Your task to perform on an android device: turn off sleep mode Image 0: 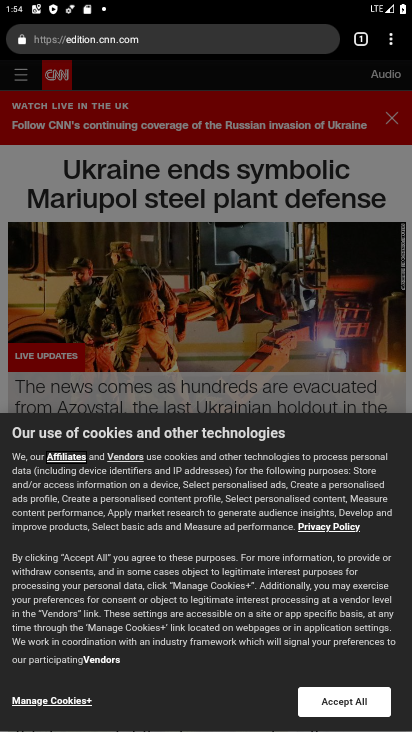
Step 0: press home button
Your task to perform on an android device: turn off sleep mode Image 1: 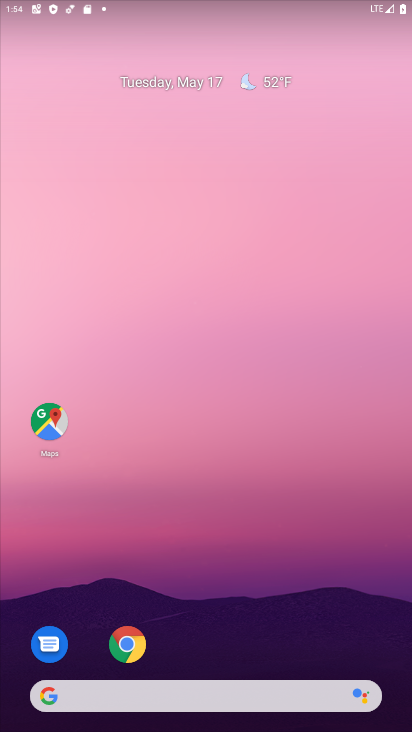
Step 1: drag from (187, 687) to (162, 10)
Your task to perform on an android device: turn off sleep mode Image 2: 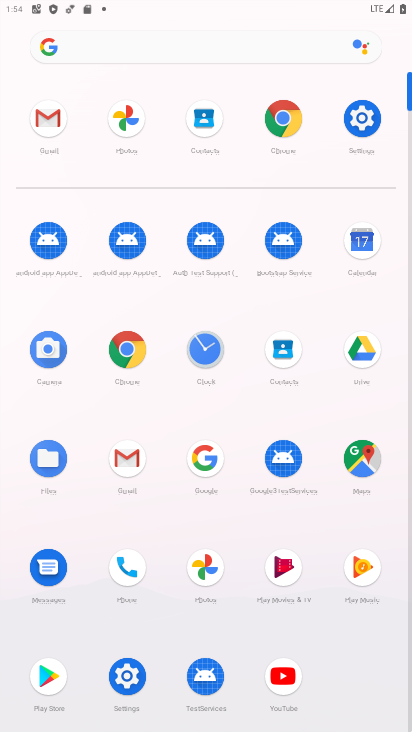
Step 2: click (368, 119)
Your task to perform on an android device: turn off sleep mode Image 3: 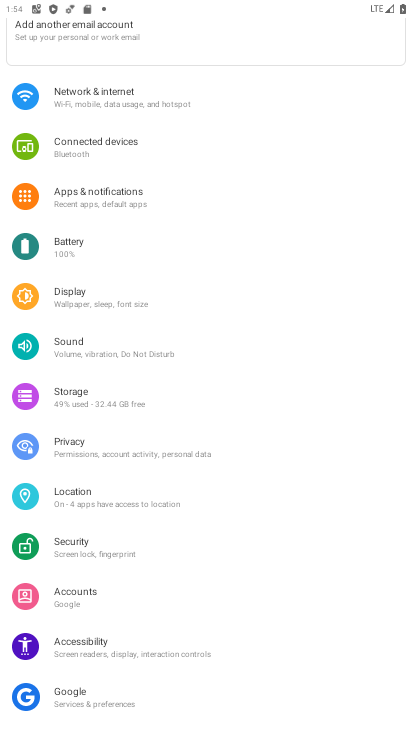
Step 3: click (87, 303)
Your task to perform on an android device: turn off sleep mode Image 4: 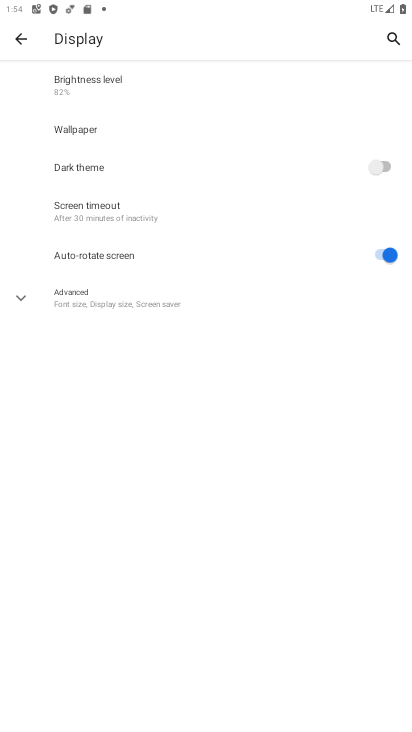
Step 4: click (93, 283)
Your task to perform on an android device: turn off sleep mode Image 5: 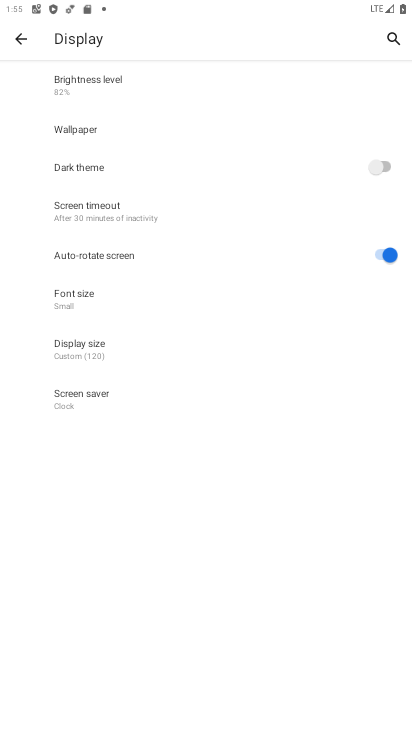
Step 5: task complete